Your task to perform on an android device: Search for the new lego star wars 2021 on Target Image 0: 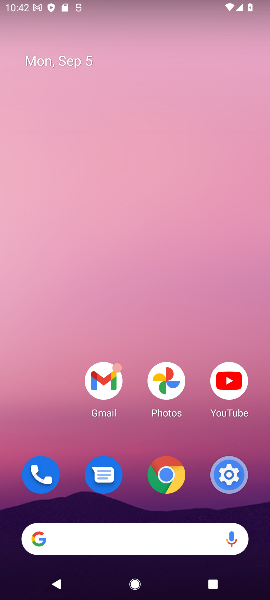
Step 0: click (136, 541)
Your task to perform on an android device: Search for the new lego star wars 2021 on Target Image 1: 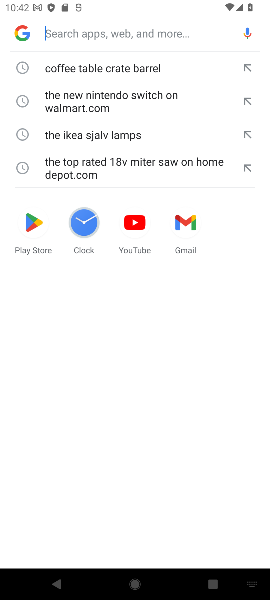
Step 1: type "the new lego star wars 2021 on Target"
Your task to perform on an android device: Search for the new lego star wars 2021 on Target Image 2: 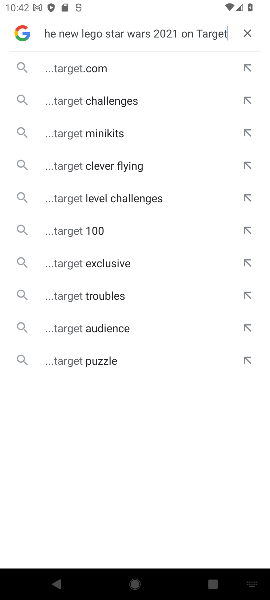
Step 2: click (78, 67)
Your task to perform on an android device: Search for the new lego star wars 2021 on Target Image 3: 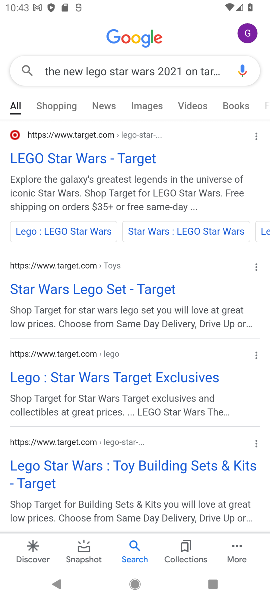
Step 3: task complete